Your task to perform on an android device: Search for pizza restaurants on Maps Image 0: 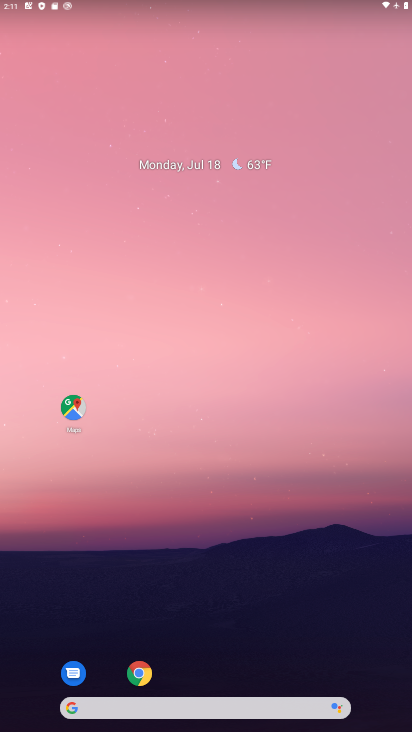
Step 0: click (69, 419)
Your task to perform on an android device: Search for pizza restaurants on Maps Image 1: 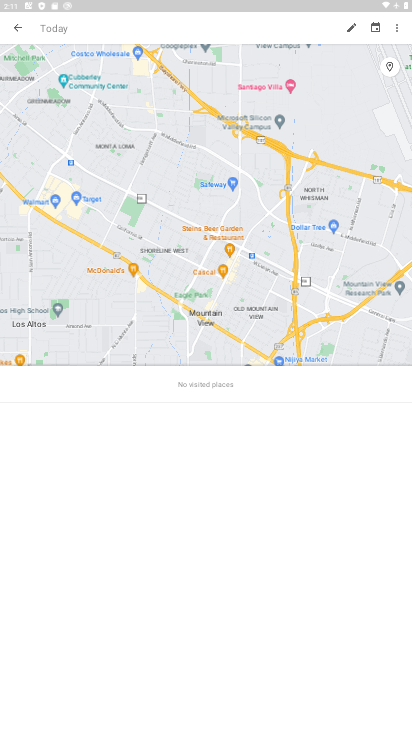
Step 1: click (12, 27)
Your task to perform on an android device: Search for pizza restaurants on Maps Image 2: 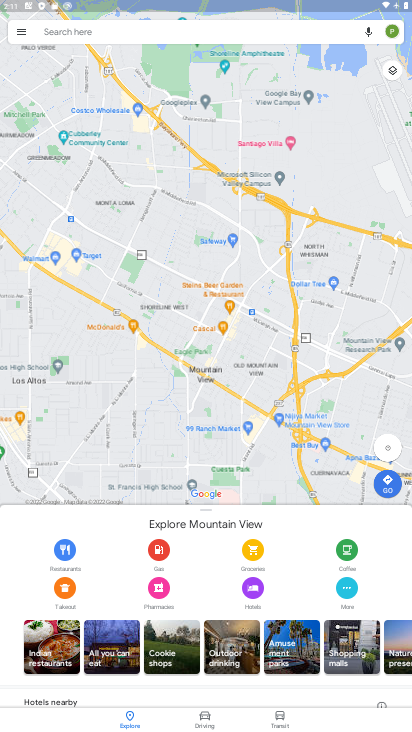
Step 2: click (82, 32)
Your task to perform on an android device: Search for pizza restaurants on Maps Image 3: 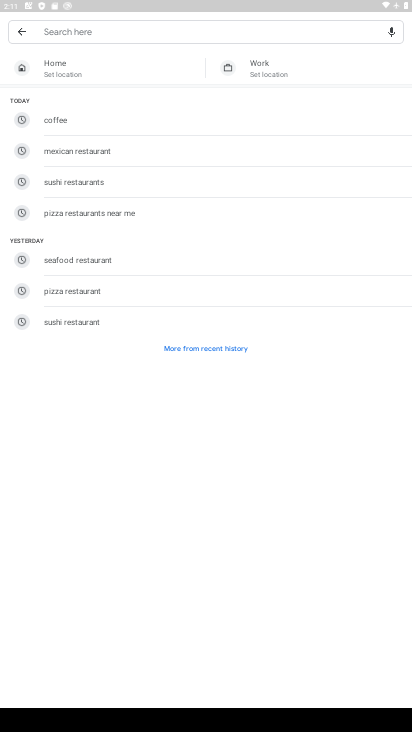
Step 3: click (102, 291)
Your task to perform on an android device: Search for pizza restaurants on Maps Image 4: 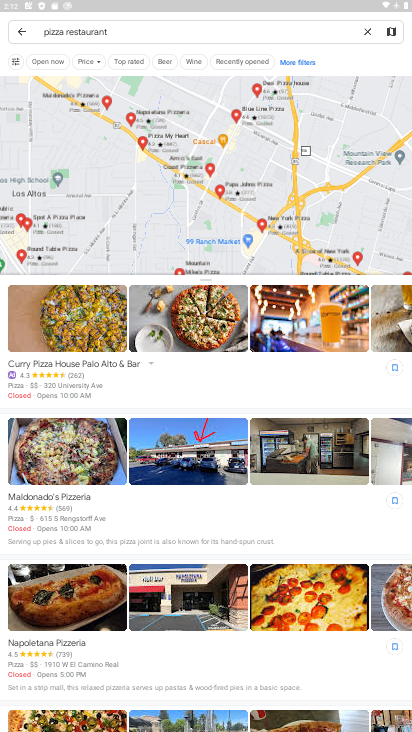
Step 4: task complete